Your task to perform on an android device: turn off priority inbox in the gmail app Image 0: 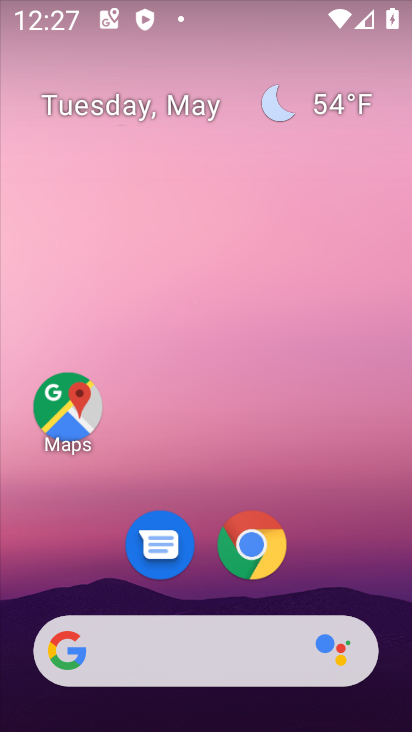
Step 0: drag from (360, 604) to (281, 97)
Your task to perform on an android device: turn off priority inbox in the gmail app Image 1: 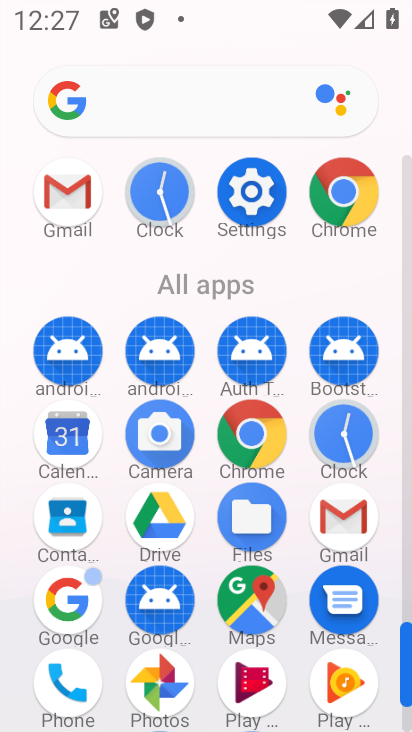
Step 1: click (339, 518)
Your task to perform on an android device: turn off priority inbox in the gmail app Image 2: 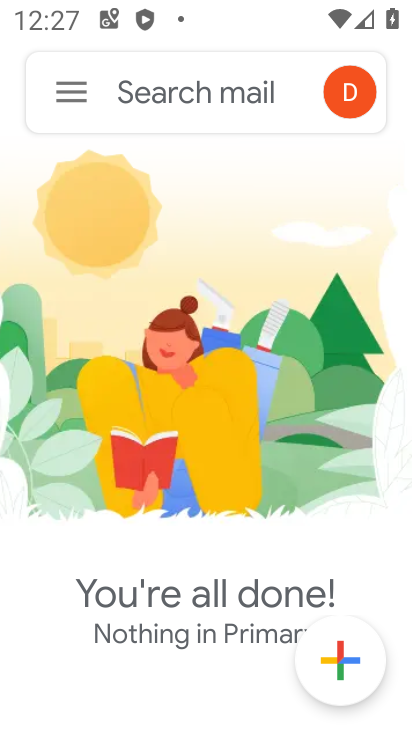
Step 2: click (68, 115)
Your task to perform on an android device: turn off priority inbox in the gmail app Image 3: 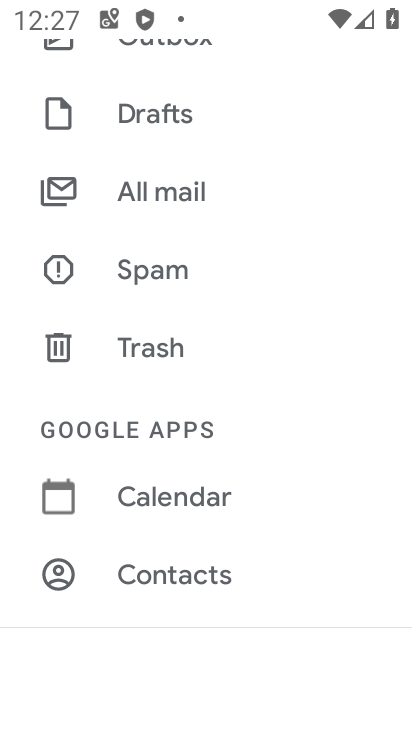
Step 3: drag from (138, 626) to (125, 125)
Your task to perform on an android device: turn off priority inbox in the gmail app Image 4: 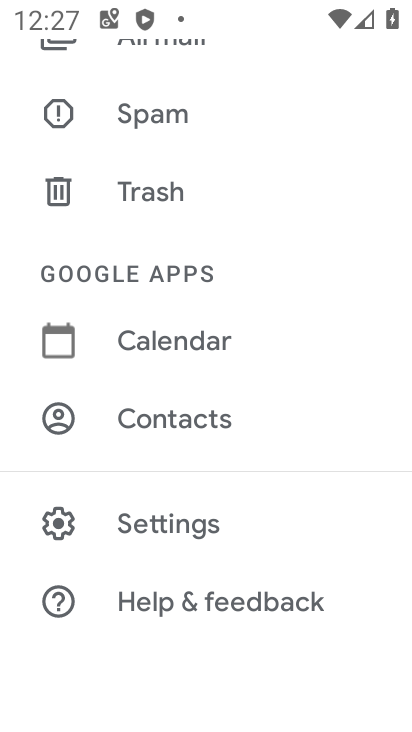
Step 4: click (144, 512)
Your task to perform on an android device: turn off priority inbox in the gmail app Image 5: 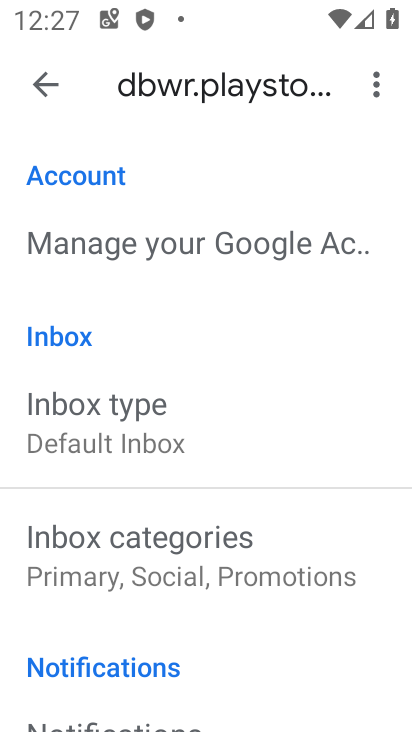
Step 5: click (134, 448)
Your task to perform on an android device: turn off priority inbox in the gmail app Image 6: 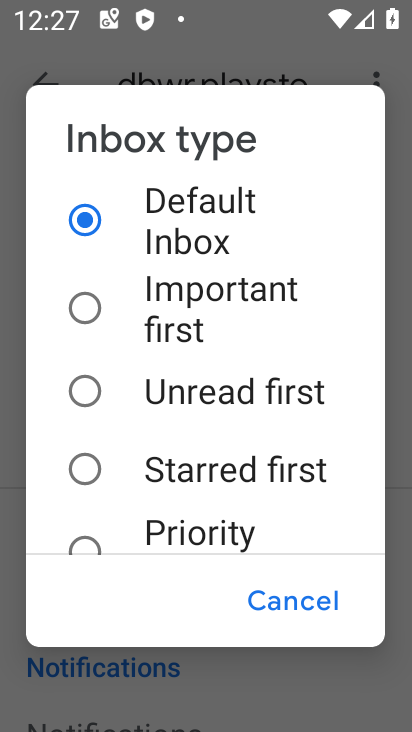
Step 6: task complete